Your task to perform on an android device: Open settings on Google Maps Image 0: 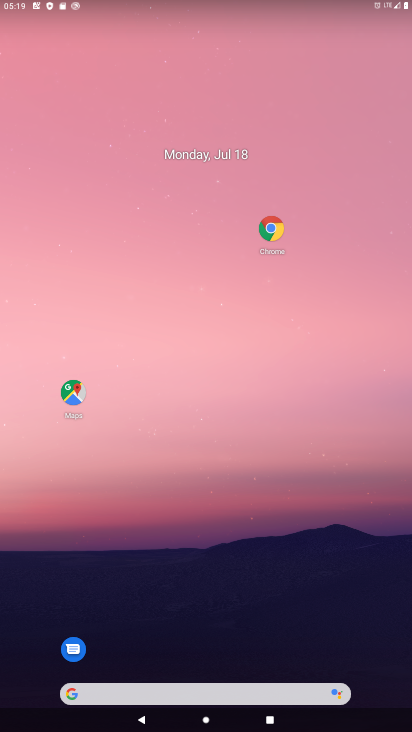
Step 0: click (75, 394)
Your task to perform on an android device: Open settings on Google Maps Image 1: 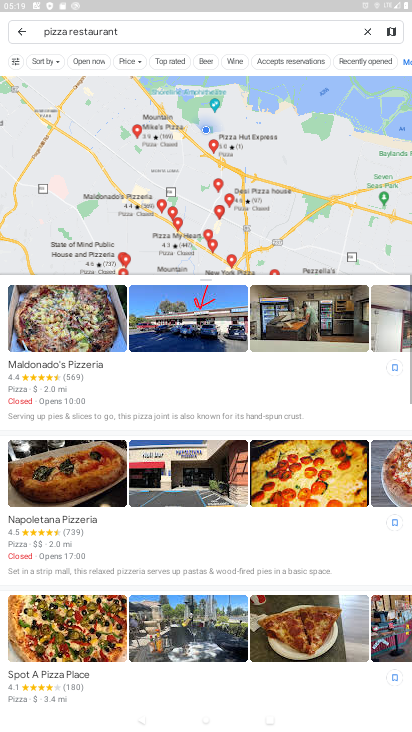
Step 1: task complete